Your task to perform on an android device: Open Google Maps Image 0: 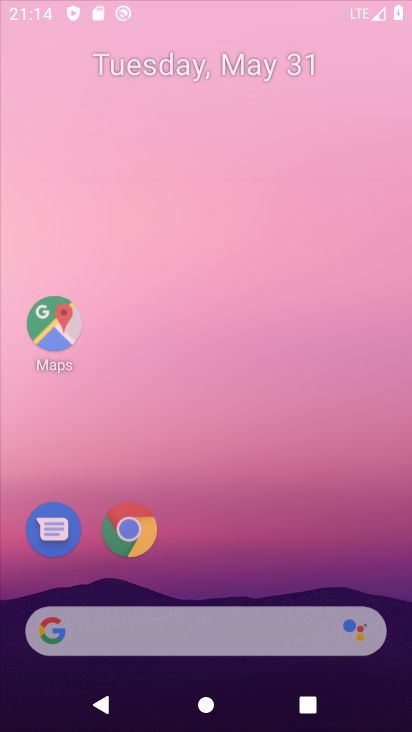
Step 0: drag from (369, 150) to (357, 2)
Your task to perform on an android device: Open Google Maps Image 1: 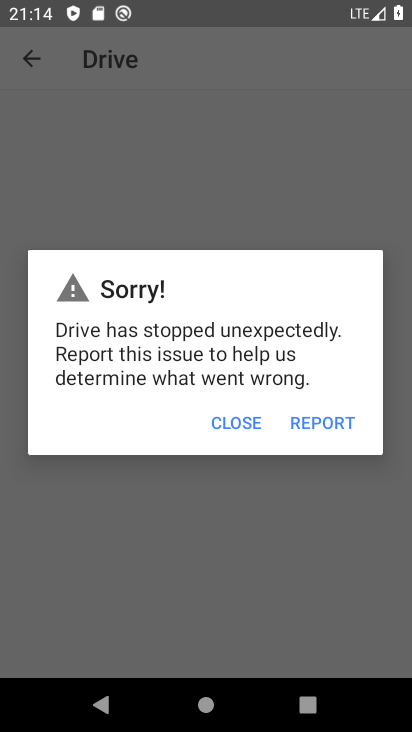
Step 1: press back button
Your task to perform on an android device: Open Google Maps Image 2: 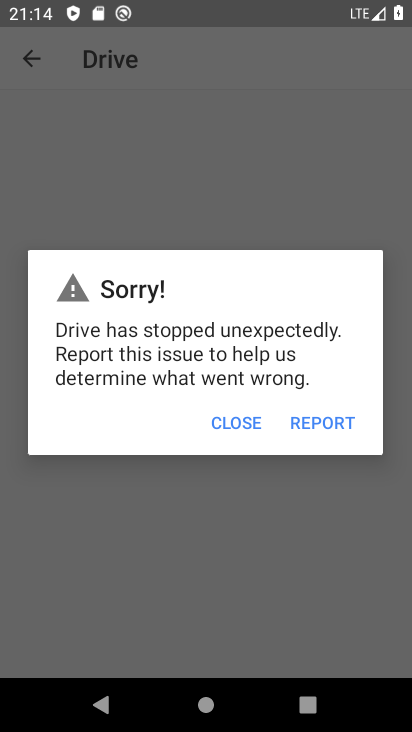
Step 2: press home button
Your task to perform on an android device: Open Google Maps Image 3: 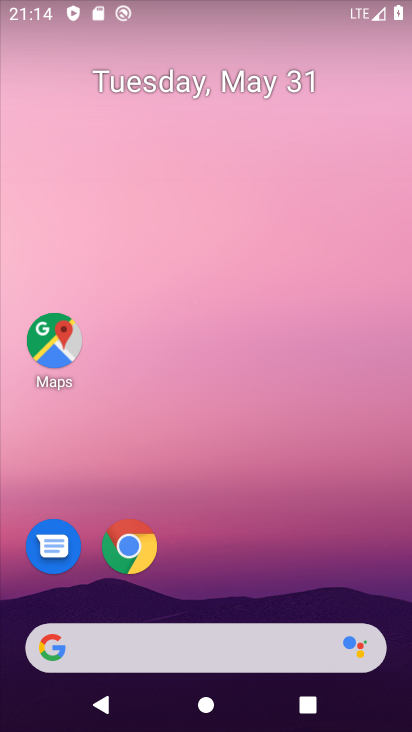
Step 3: click (49, 337)
Your task to perform on an android device: Open Google Maps Image 4: 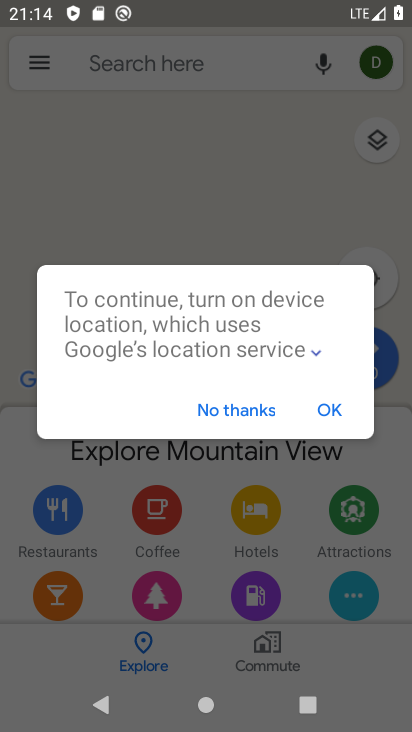
Step 4: task complete